Your task to perform on an android device: Go to Amazon Image 0: 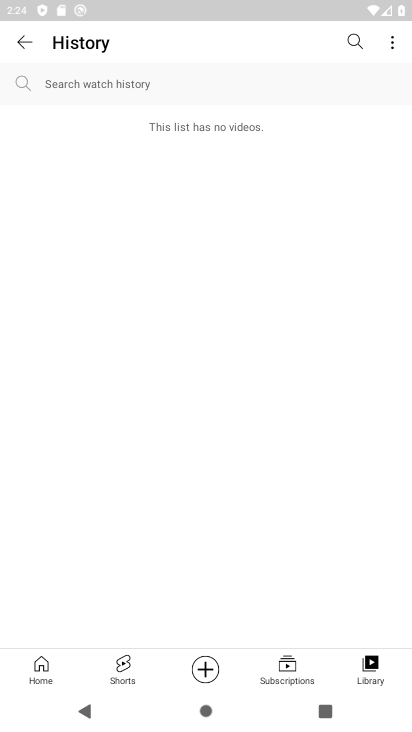
Step 0: press back button
Your task to perform on an android device: Go to Amazon Image 1: 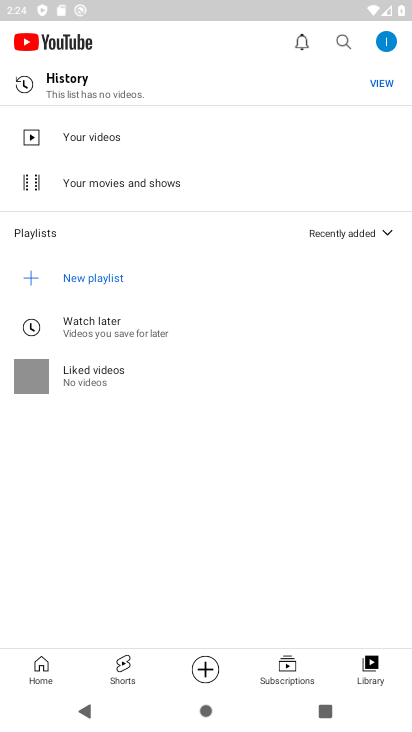
Step 1: press back button
Your task to perform on an android device: Go to Amazon Image 2: 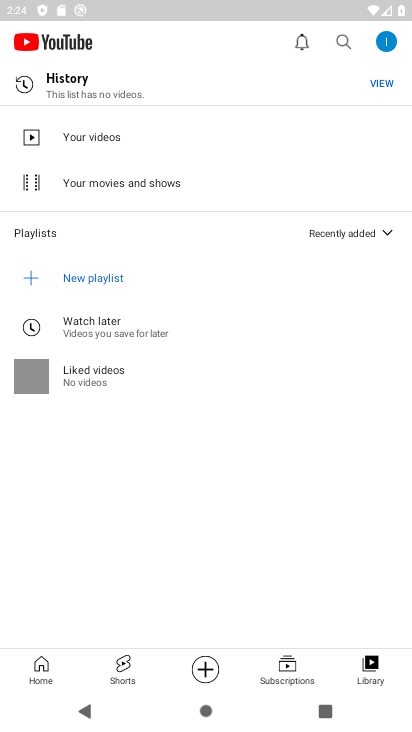
Step 2: press back button
Your task to perform on an android device: Go to Amazon Image 3: 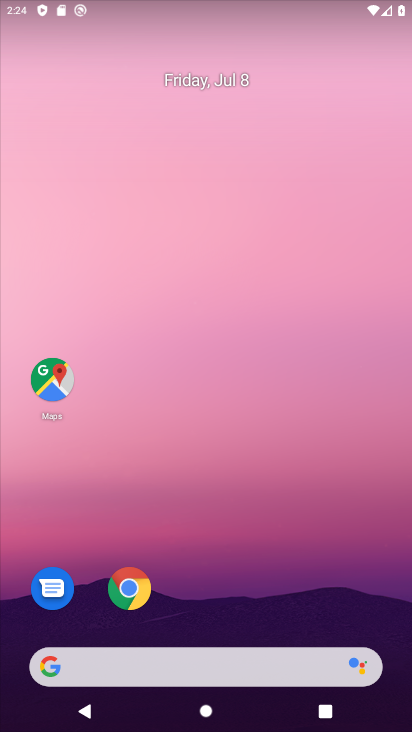
Step 3: click (124, 586)
Your task to perform on an android device: Go to Amazon Image 4: 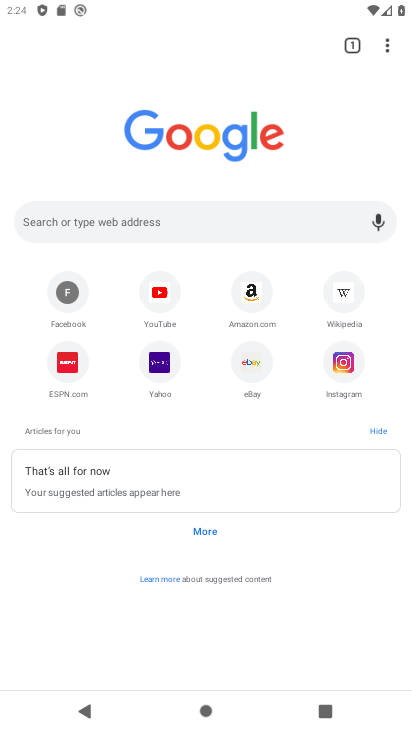
Step 4: click (252, 292)
Your task to perform on an android device: Go to Amazon Image 5: 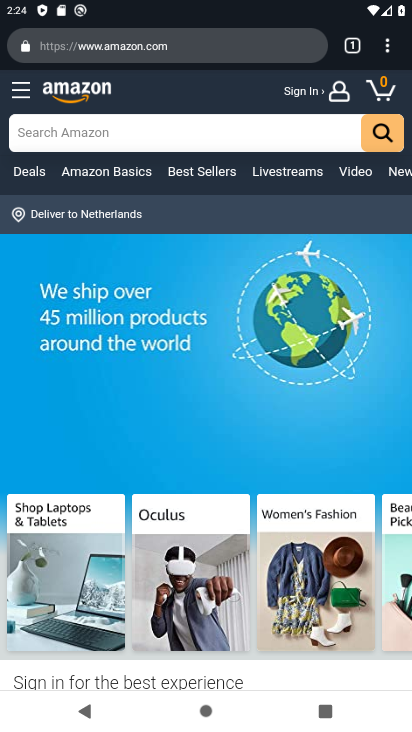
Step 5: task complete